Your task to perform on an android device: change keyboard looks Image 0: 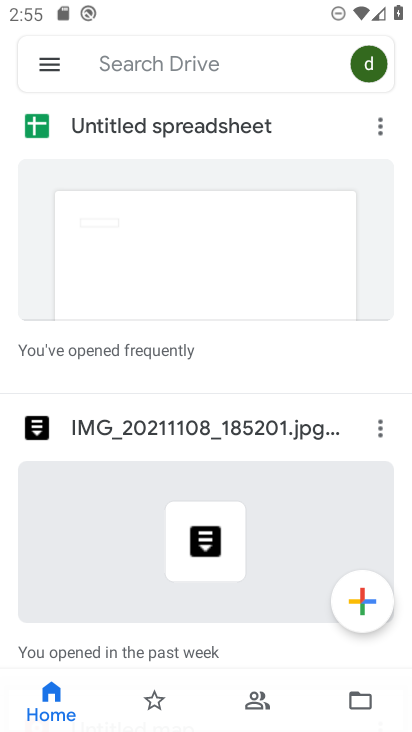
Step 0: press home button
Your task to perform on an android device: change keyboard looks Image 1: 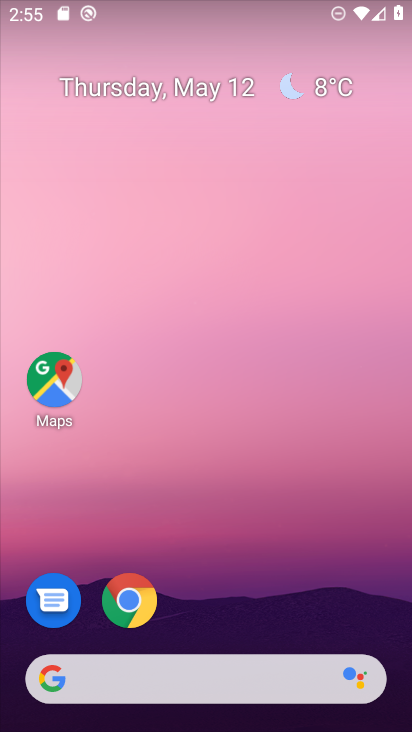
Step 1: drag from (214, 729) to (222, 186)
Your task to perform on an android device: change keyboard looks Image 2: 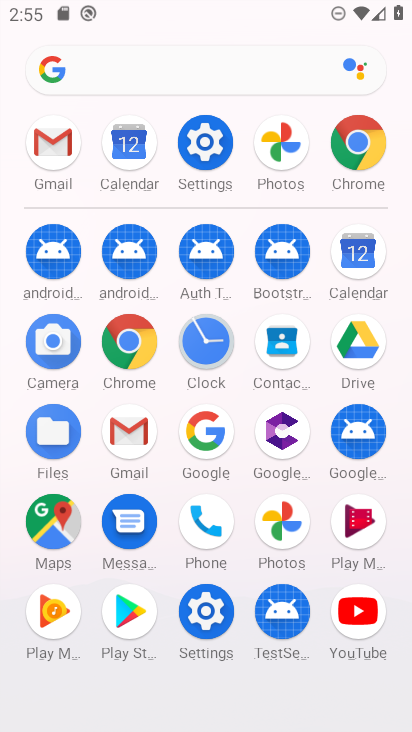
Step 2: click (207, 142)
Your task to perform on an android device: change keyboard looks Image 3: 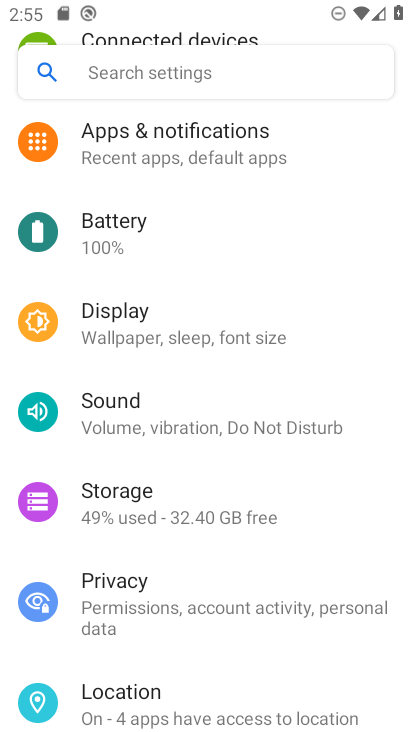
Step 3: drag from (190, 677) to (189, 345)
Your task to perform on an android device: change keyboard looks Image 4: 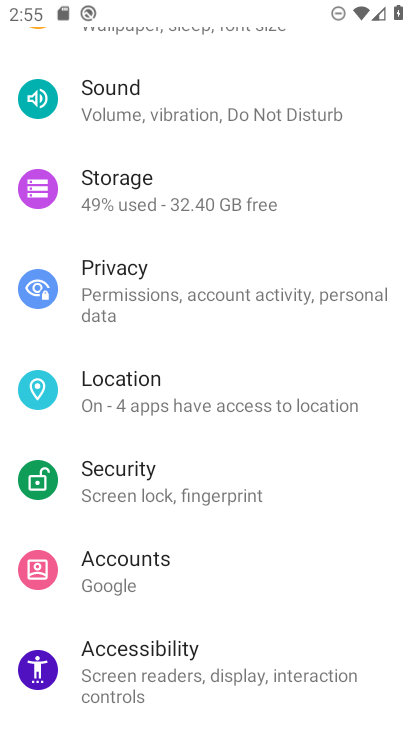
Step 4: drag from (145, 652) to (156, 276)
Your task to perform on an android device: change keyboard looks Image 5: 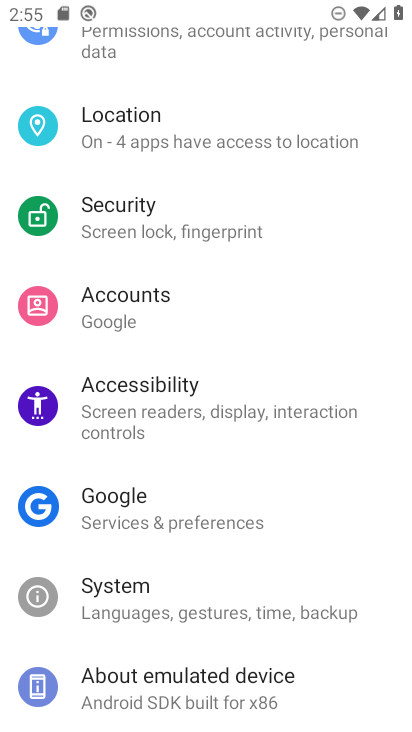
Step 5: drag from (163, 661) to (163, 304)
Your task to perform on an android device: change keyboard looks Image 6: 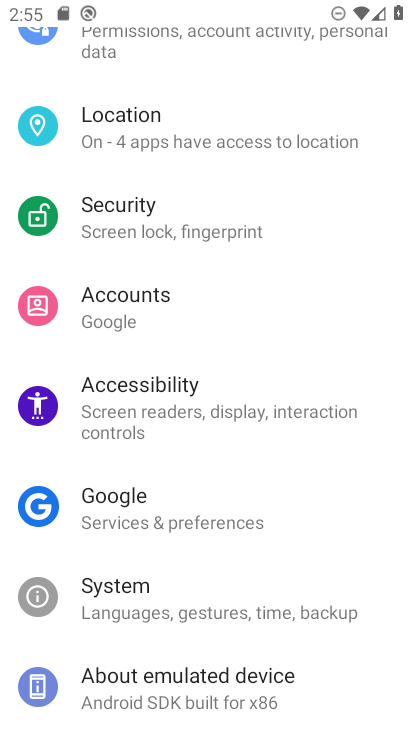
Step 6: drag from (155, 691) to (160, 258)
Your task to perform on an android device: change keyboard looks Image 7: 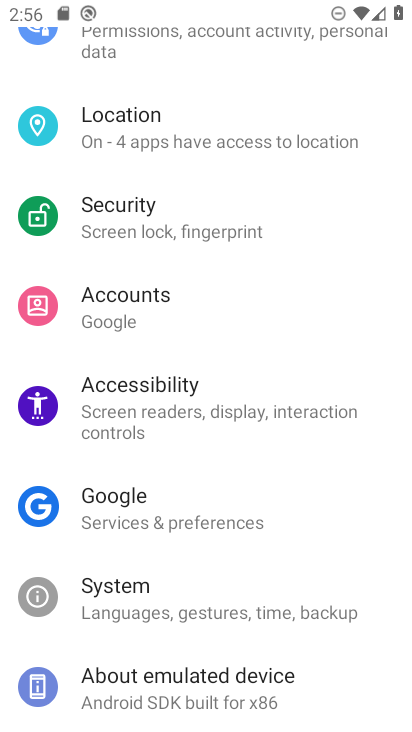
Step 7: click (138, 604)
Your task to perform on an android device: change keyboard looks Image 8: 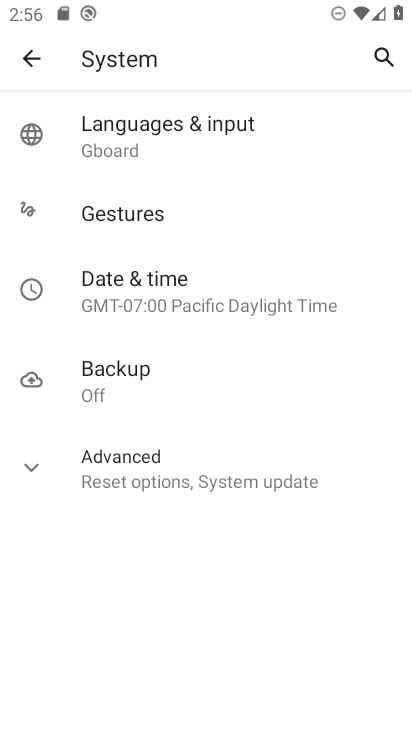
Step 8: click (136, 135)
Your task to perform on an android device: change keyboard looks Image 9: 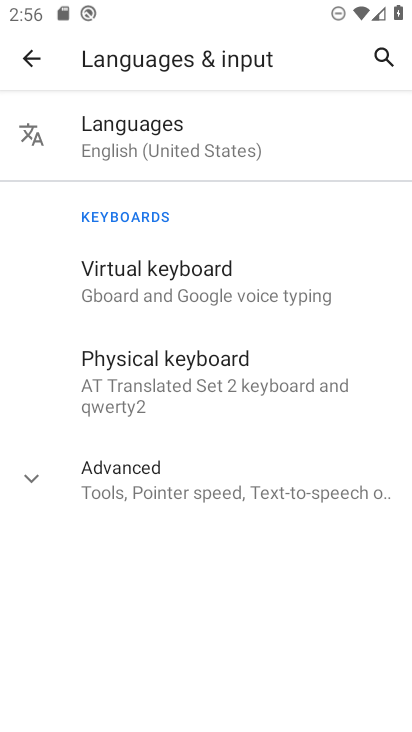
Step 9: click (168, 272)
Your task to perform on an android device: change keyboard looks Image 10: 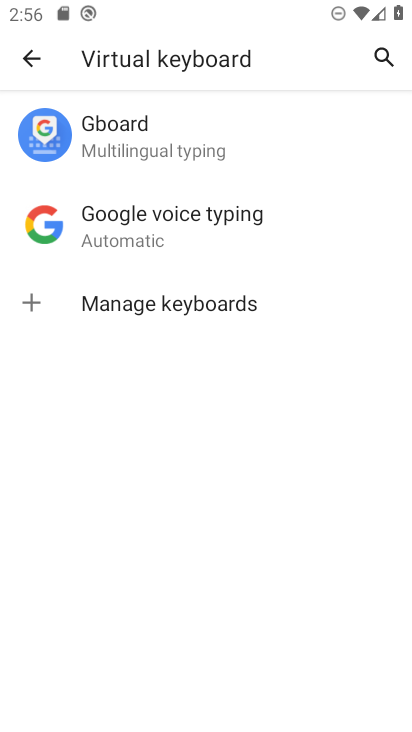
Step 10: click (133, 144)
Your task to perform on an android device: change keyboard looks Image 11: 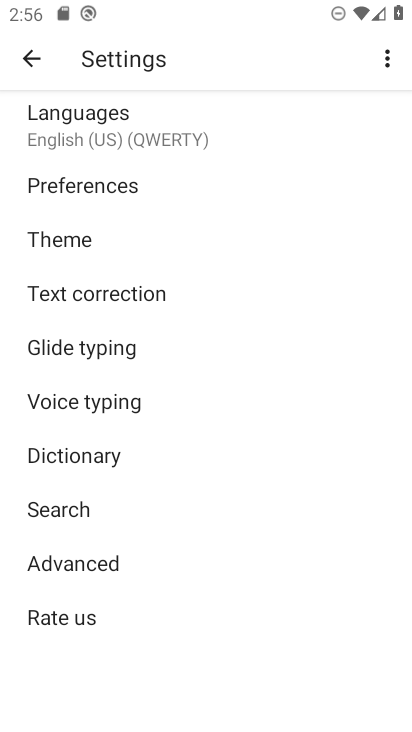
Step 11: click (60, 241)
Your task to perform on an android device: change keyboard looks Image 12: 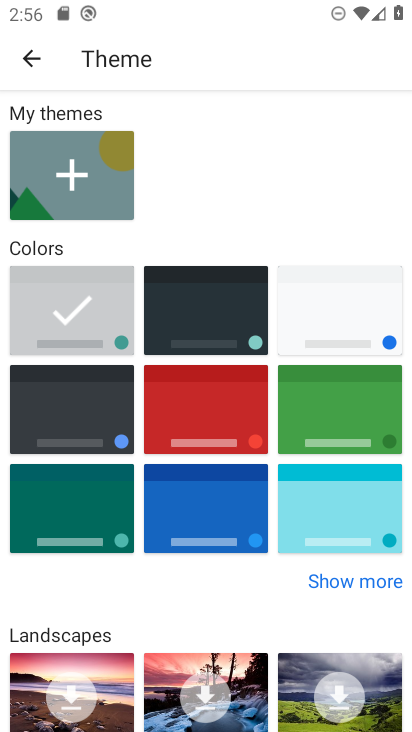
Step 12: click (186, 296)
Your task to perform on an android device: change keyboard looks Image 13: 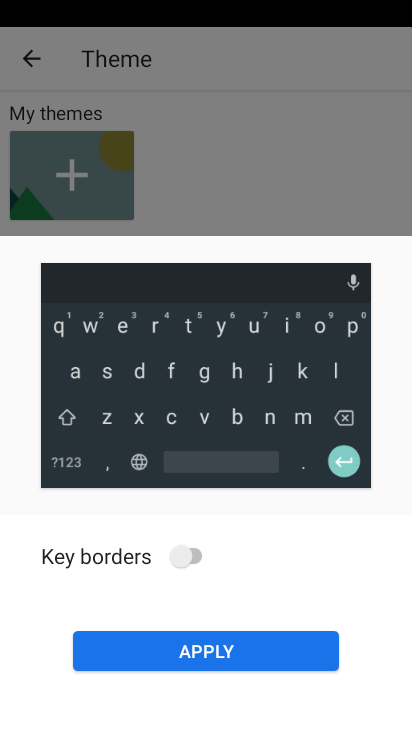
Step 13: click (197, 554)
Your task to perform on an android device: change keyboard looks Image 14: 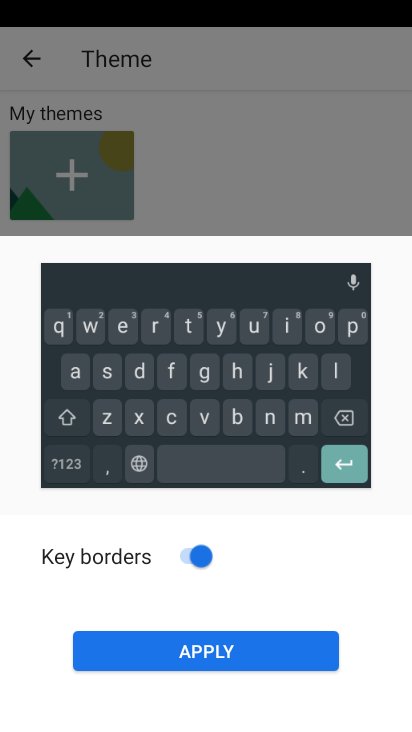
Step 14: click (246, 651)
Your task to perform on an android device: change keyboard looks Image 15: 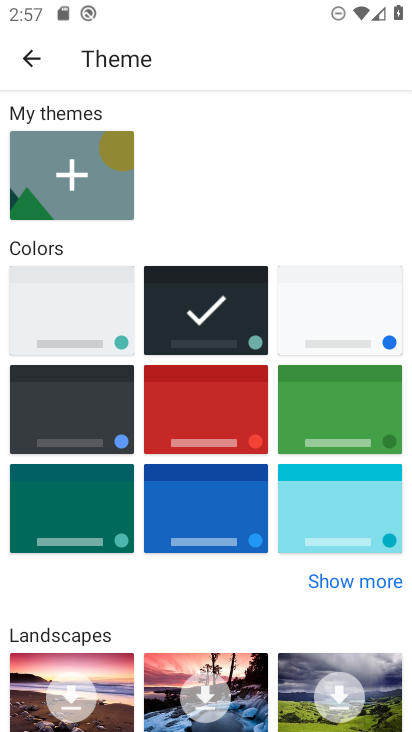
Step 15: task complete